Your task to perform on an android device: Show me popular videos on Youtube Image 0: 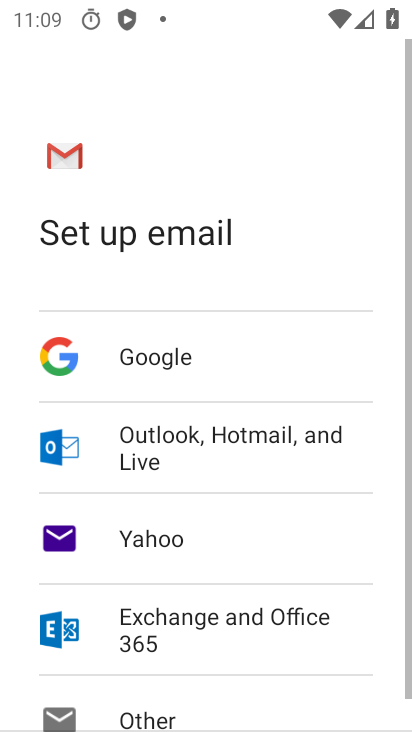
Step 0: press home button
Your task to perform on an android device: Show me popular videos on Youtube Image 1: 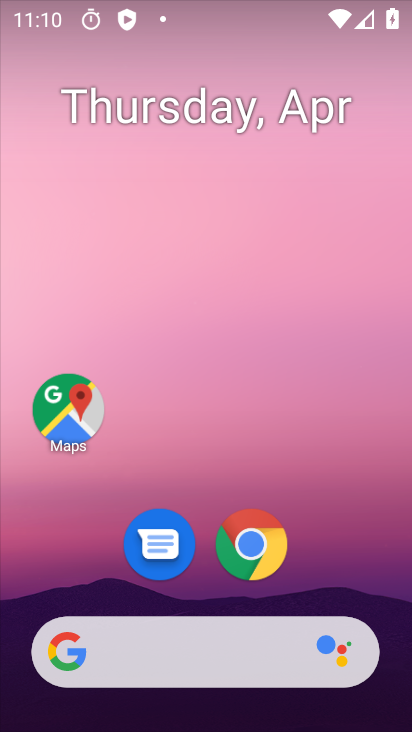
Step 1: drag from (104, 445) to (248, 174)
Your task to perform on an android device: Show me popular videos on Youtube Image 2: 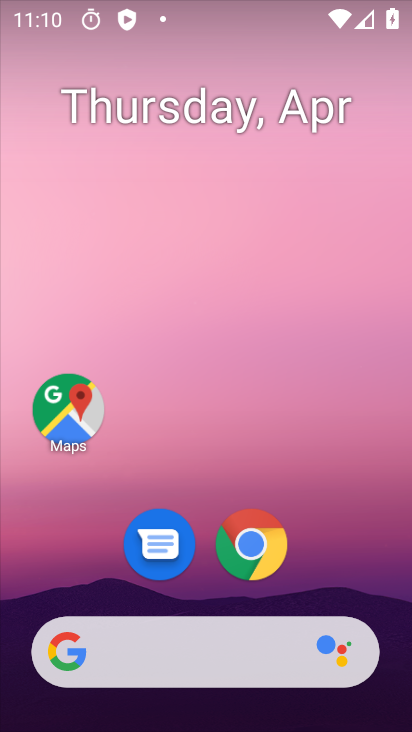
Step 2: drag from (35, 562) to (373, 100)
Your task to perform on an android device: Show me popular videos on Youtube Image 3: 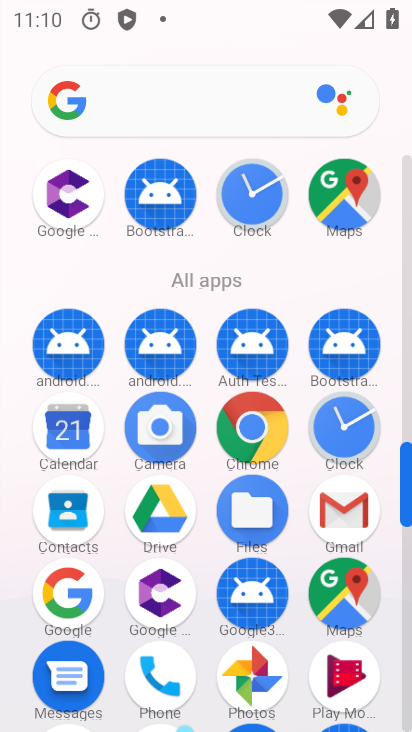
Step 3: drag from (38, 631) to (291, 282)
Your task to perform on an android device: Show me popular videos on Youtube Image 4: 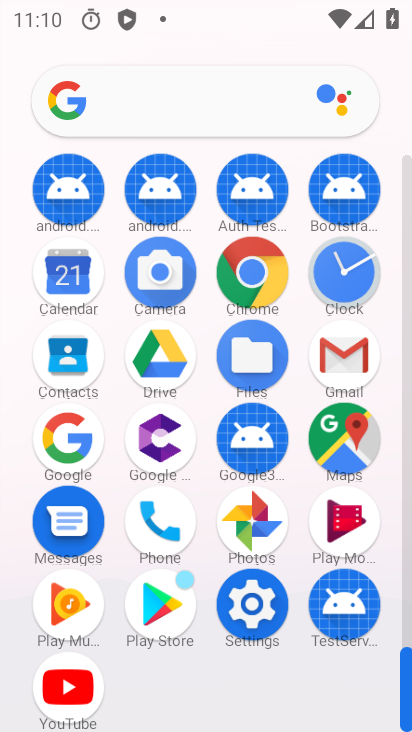
Step 4: click (95, 683)
Your task to perform on an android device: Show me popular videos on Youtube Image 5: 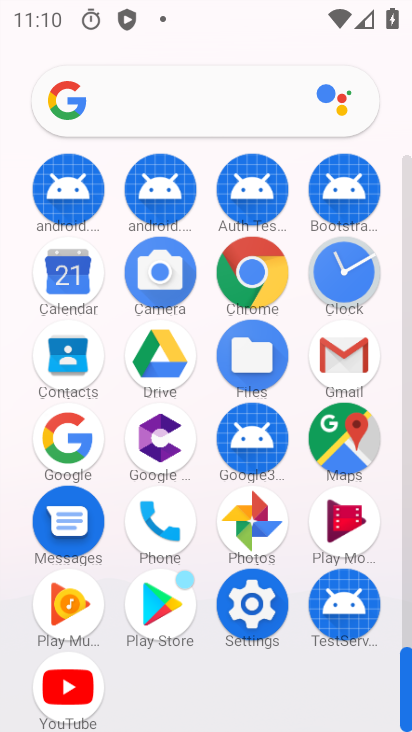
Step 5: click (59, 693)
Your task to perform on an android device: Show me popular videos on Youtube Image 6: 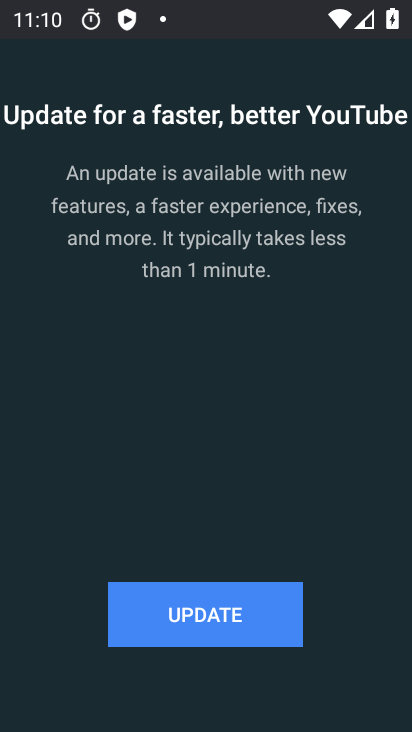
Step 6: task complete